Your task to perform on an android device: Search for the best selling books on Target. Image 0: 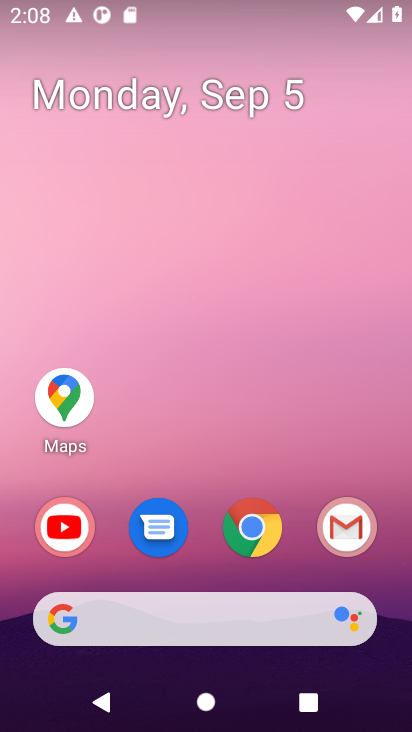
Step 0: click (247, 525)
Your task to perform on an android device: Search for the best selling books on Target. Image 1: 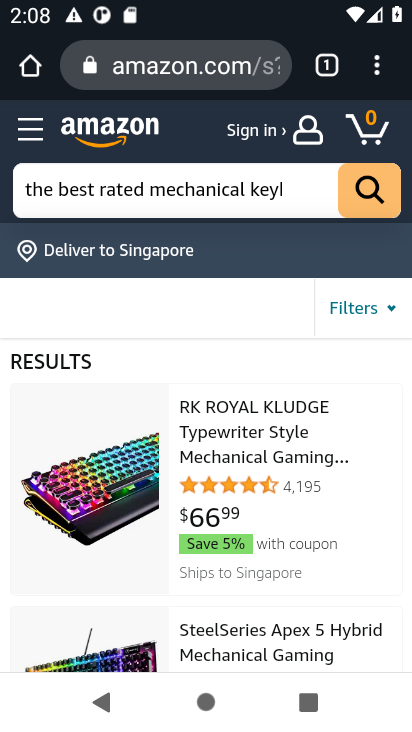
Step 1: click (185, 63)
Your task to perform on an android device: Search for the best selling books on Target. Image 2: 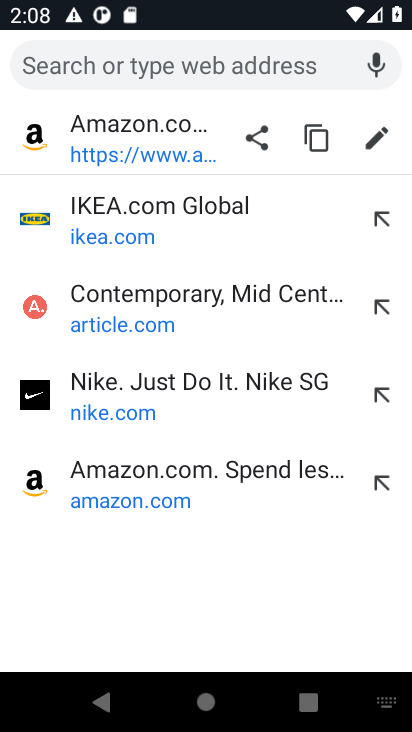
Step 2: type "target"
Your task to perform on an android device: Search for the best selling books on Target. Image 3: 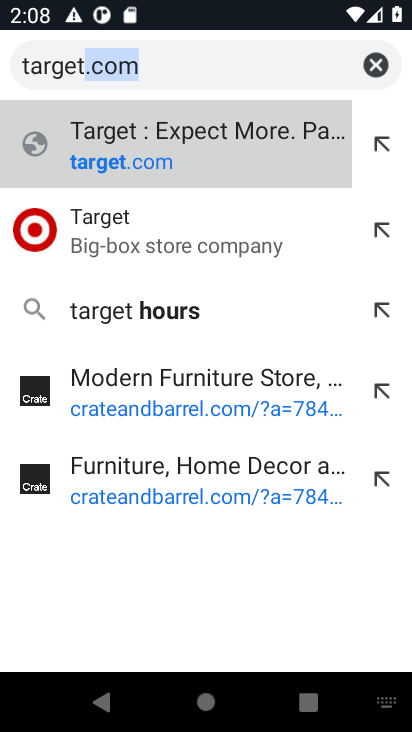
Step 3: click (76, 149)
Your task to perform on an android device: Search for the best selling books on Target. Image 4: 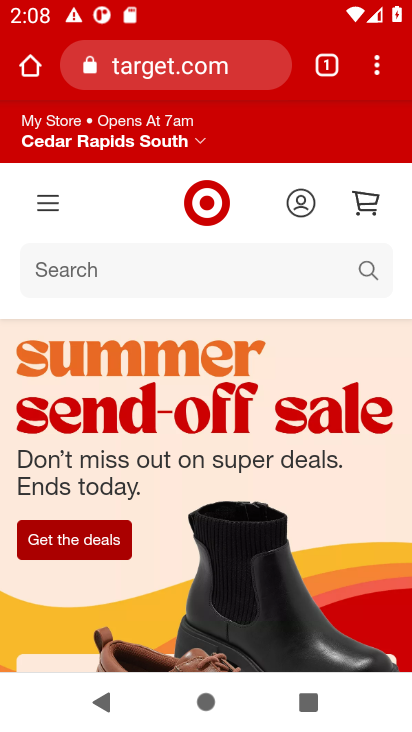
Step 4: click (251, 269)
Your task to perform on an android device: Search for the best selling books on Target. Image 5: 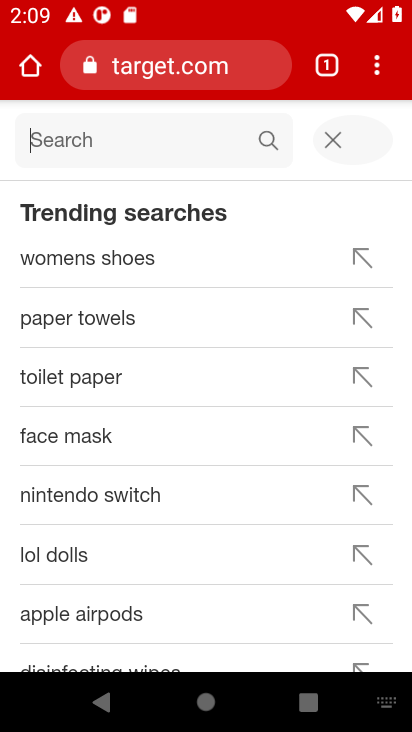
Step 5: type "the best selling books"
Your task to perform on an android device: Search for the best selling books on Target. Image 6: 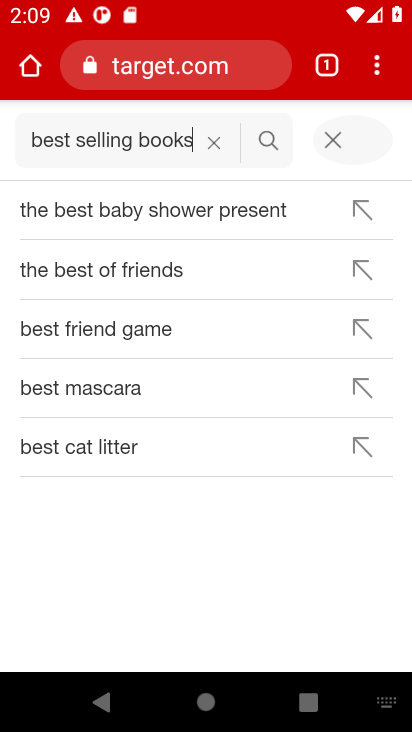
Step 6: click (271, 142)
Your task to perform on an android device: Search for the best selling books on Target. Image 7: 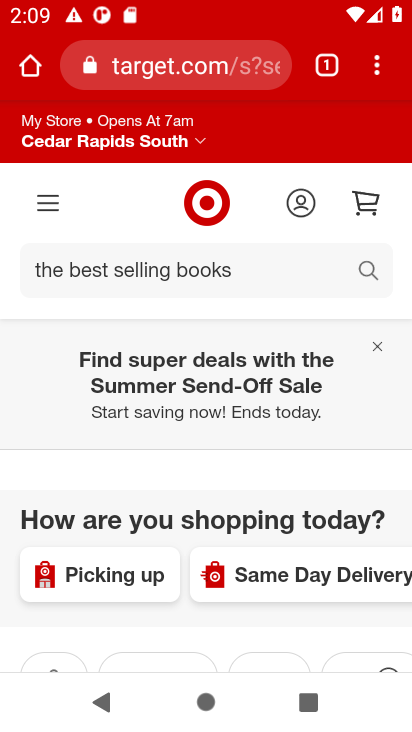
Step 7: task complete